Your task to perform on an android device: turn on showing notifications on the lock screen Image 0: 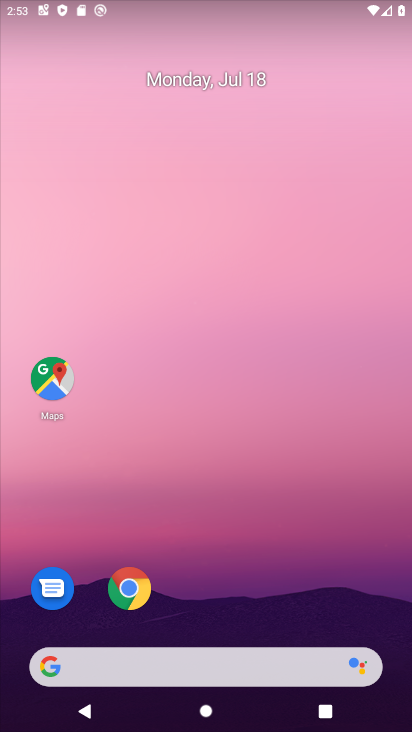
Step 0: drag from (240, 607) to (230, 75)
Your task to perform on an android device: turn on showing notifications on the lock screen Image 1: 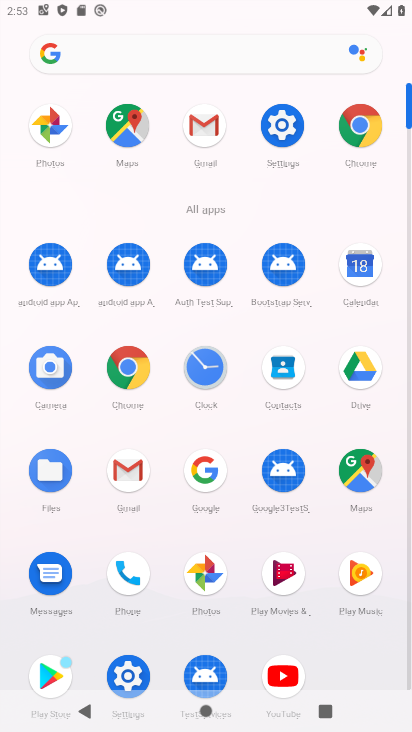
Step 1: click (278, 132)
Your task to perform on an android device: turn on showing notifications on the lock screen Image 2: 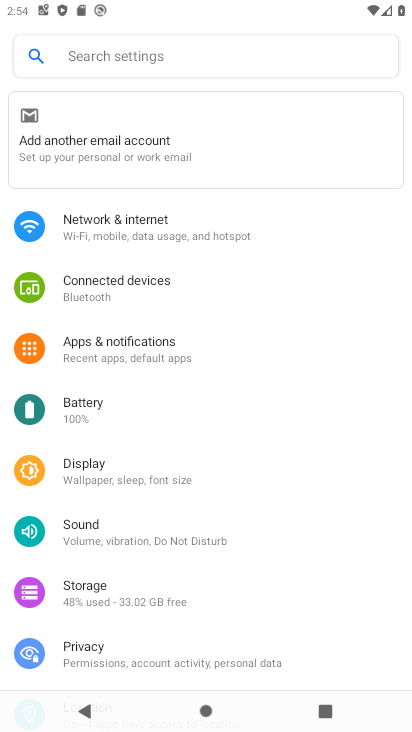
Step 2: click (92, 348)
Your task to perform on an android device: turn on showing notifications on the lock screen Image 3: 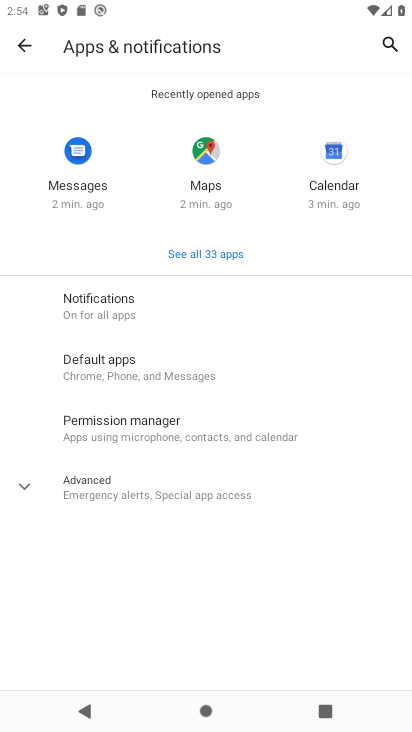
Step 3: click (139, 319)
Your task to perform on an android device: turn on showing notifications on the lock screen Image 4: 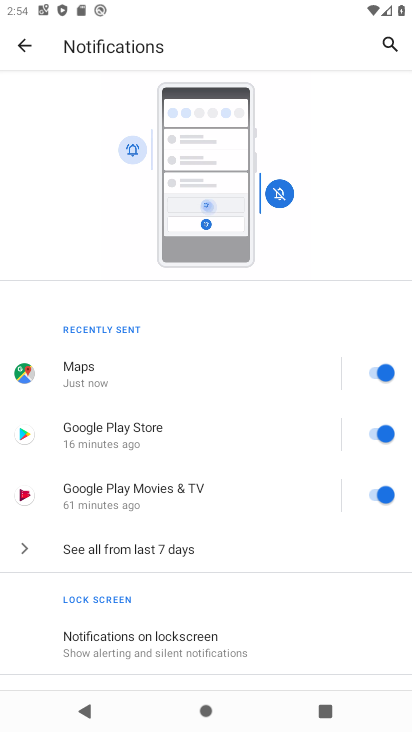
Step 4: click (170, 634)
Your task to perform on an android device: turn on showing notifications on the lock screen Image 5: 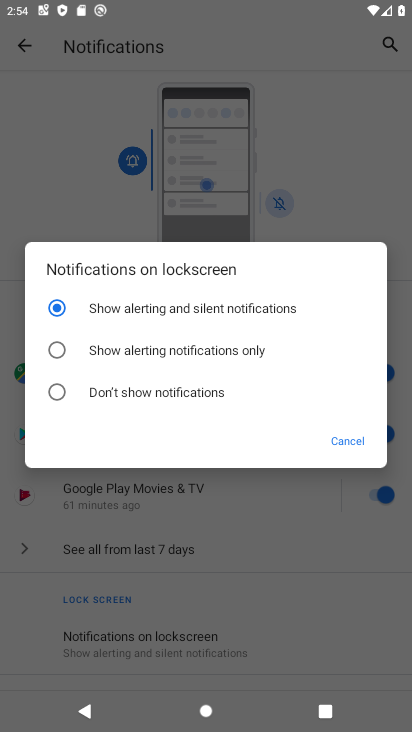
Step 5: click (179, 359)
Your task to perform on an android device: turn on showing notifications on the lock screen Image 6: 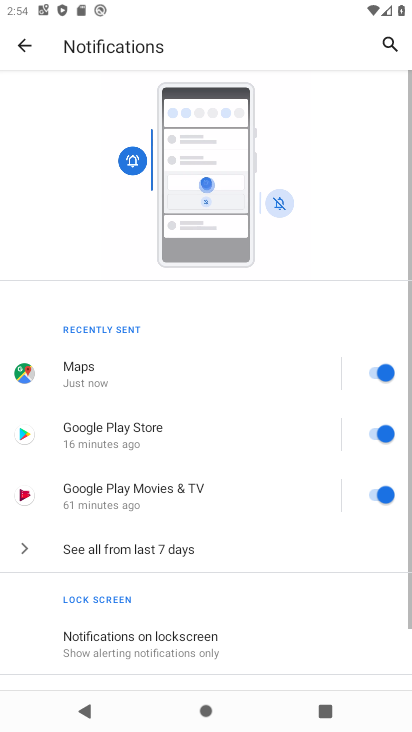
Step 6: task complete